Your task to perform on an android device: Do I have any events tomorrow? Image 0: 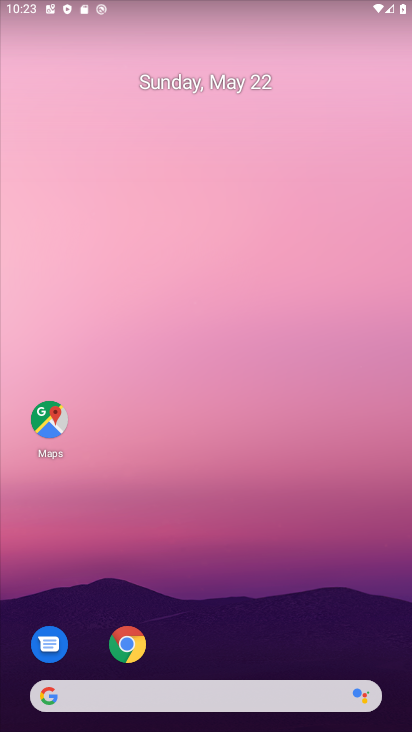
Step 0: drag from (228, 674) to (288, 278)
Your task to perform on an android device: Do I have any events tomorrow? Image 1: 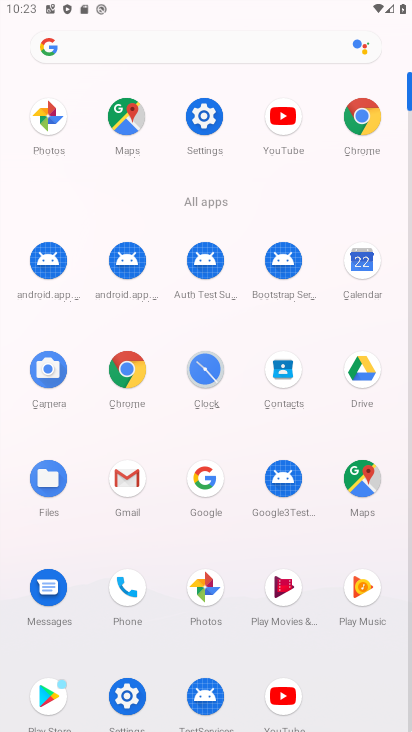
Step 1: click (365, 260)
Your task to perform on an android device: Do I have any events tomorrow? Image 2: 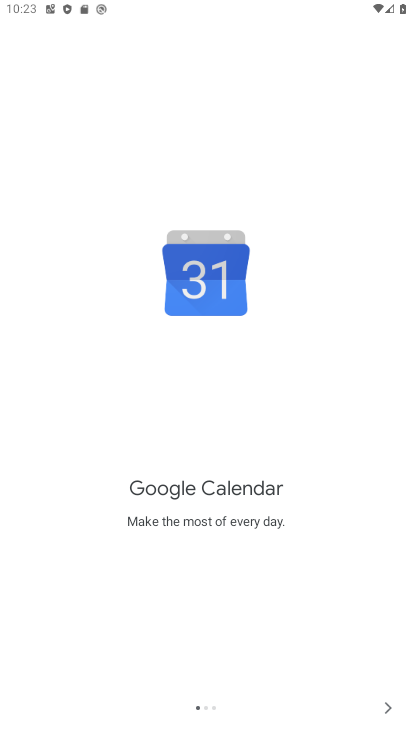
Step 2: click (385, 701)
Your task to perform on an android device: Do I have any events tomorrow? Image 3: 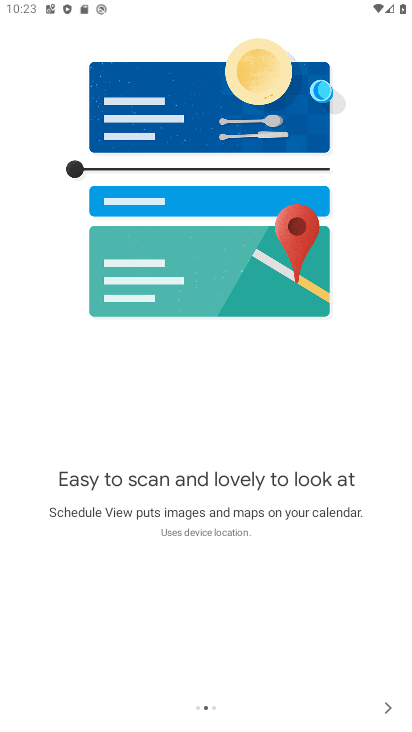
Step 3: click (382, 703)
Your task to perform on an android device: Do I have any events tomorrow? Image 4: 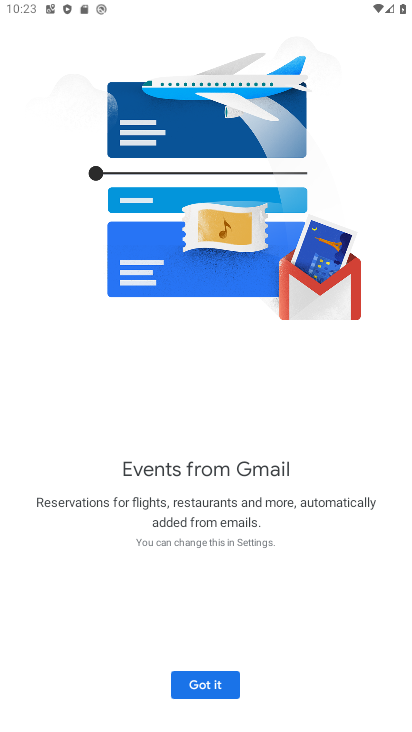
Step 4: click (205, 675)
Your task to perform on an android device: Do I have any events tomorrow? Image 5: 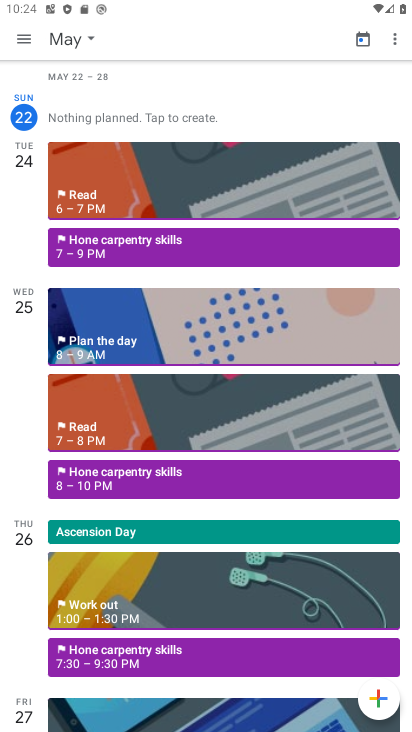
Step 5: click (65, 44)
Your task to perform on an android device: Do I have any events tomorrow? Image 6: 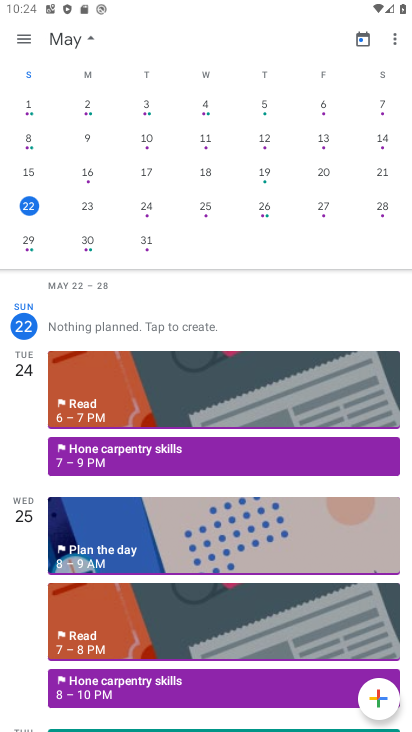
Step 6: click (89, 203)
Your task to perform on an android device: Do I have any events tomorrow? Image 7: 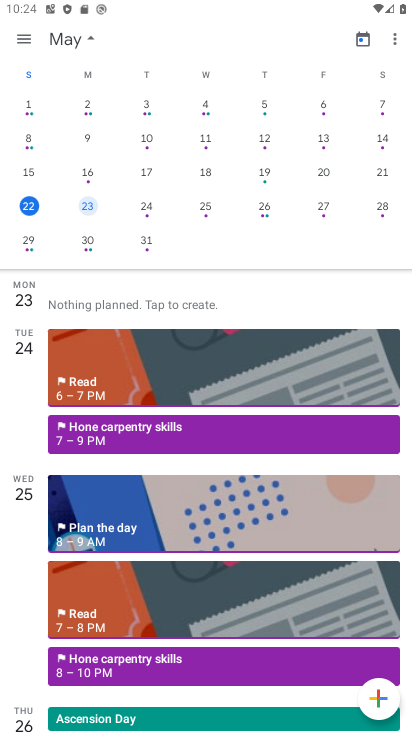
Step 7: click (109, 302)
Your task to perform on an android device: Do I have any events tomorrow? Image 8: 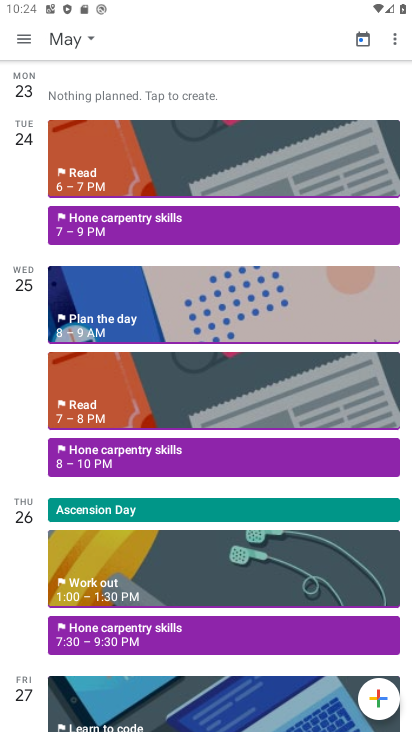
Step 8: task complete